Your task to perform on an android device: Check the news Image 0: 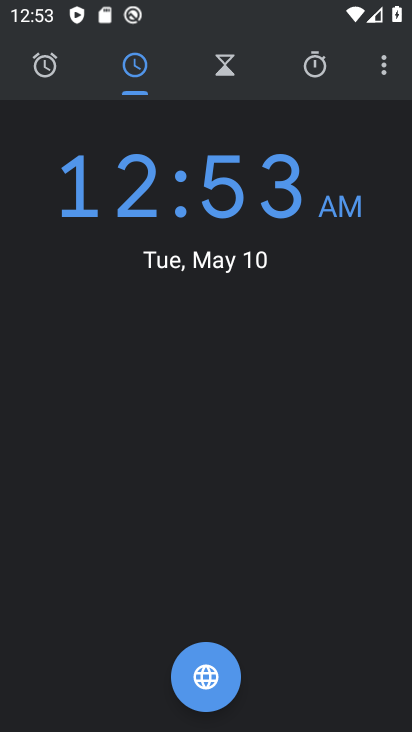
Step 0: press home button
Your task to perform on an android device: Check the news Image 1: 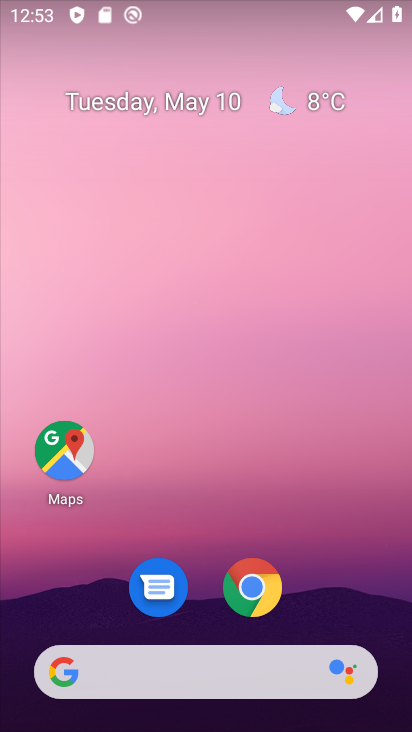
Step 1: task complete